Your task to perform on an android device: move a message to another label in the gmail app Image 0: 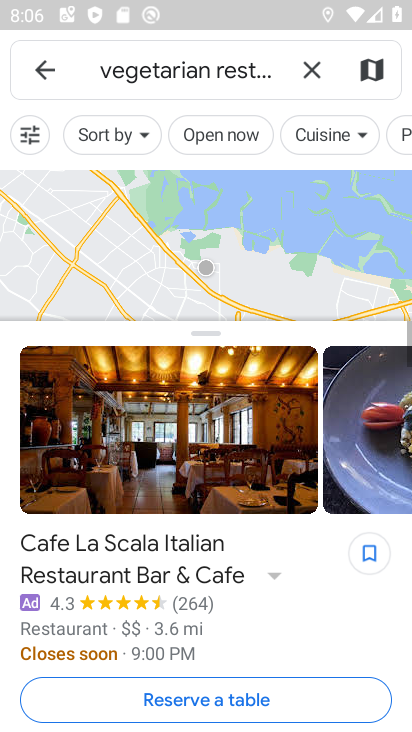
Step 0: press home button
Your task to perform on an android device: move a message to another label in the gmail app Image 1: 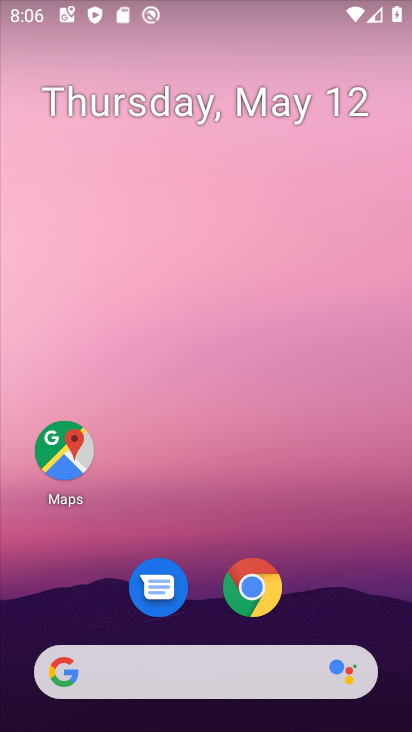
Step 1: drag from (223, 574) to (255, 253)
Your task to perform on an android device: move a message to another label in the gmail app Image 2: 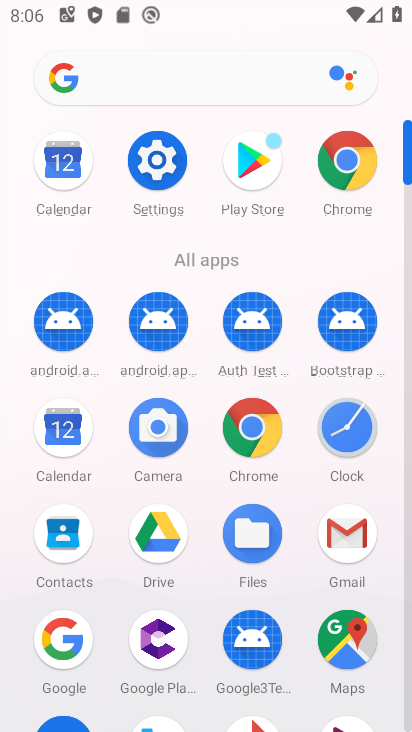
Step 2: click (350, 542)
Your task to perform on an android device: move a message to another label in the gmail app Image 3: 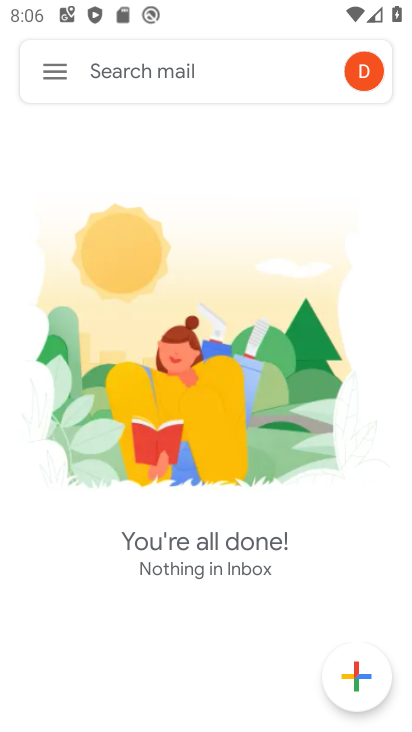
Step 3: click (47, 62)
Your task to perform on an android device: move a message to another label in the gmail app Image 4: 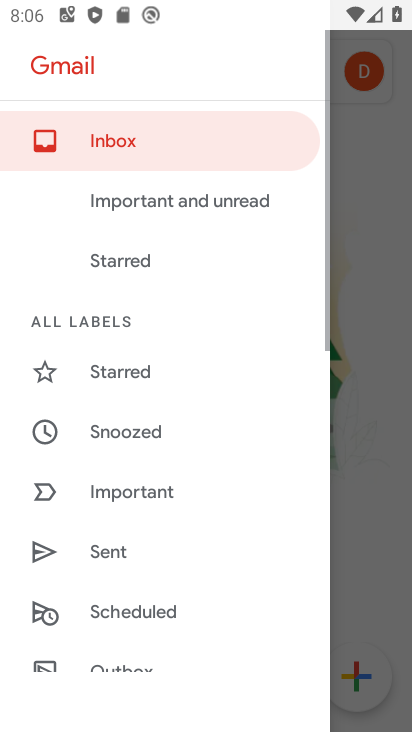
Step 4: drag from (161, 619) to (132, 224)
Your task to perform on an android device: move a message to another label in the gmail app Image 5: 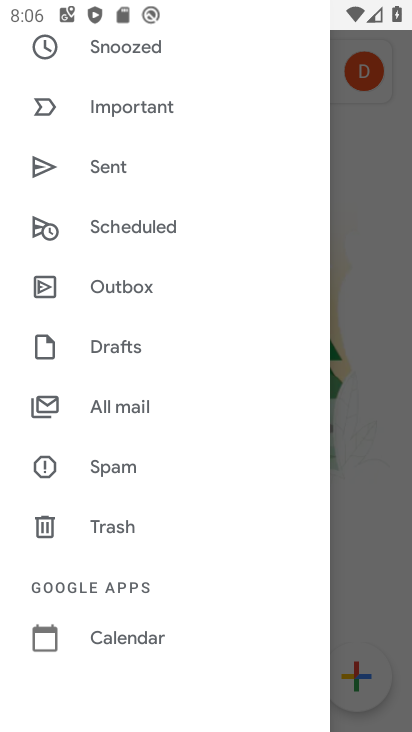
Step 5: click (163, 405)
Your task to perform on an android device: move a message to another label in the gmail app Image 6: 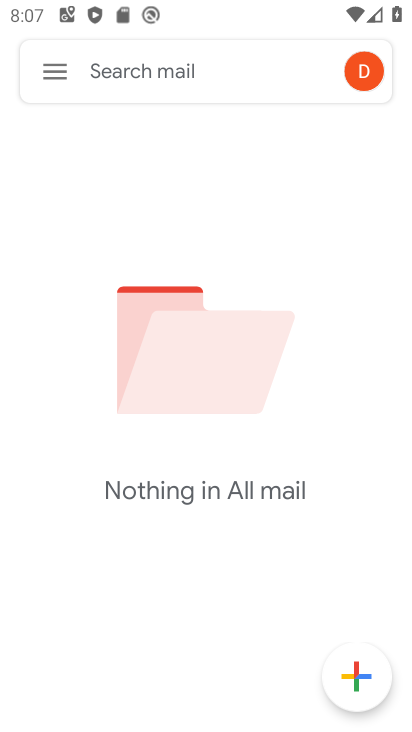
Step 6: click (53, 59)
Your task to perform on an android device: move a message to another label in the gmail app Image 7: 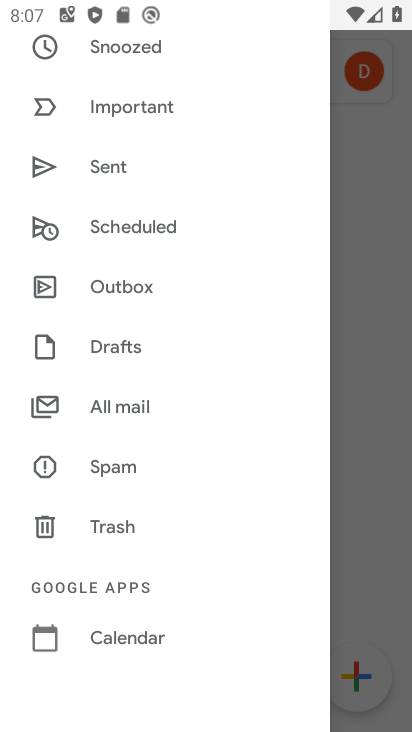
Step 7: click (111, 400)
Your task to perform on an android device: move a message to another label in the gmail app Image 8: 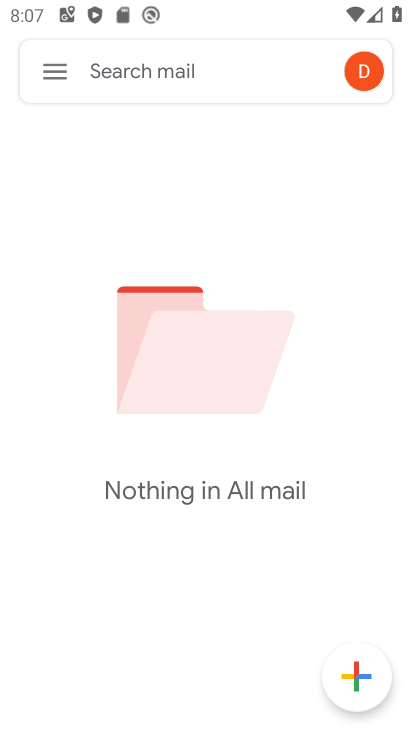
Step 8: task complete